Your task to perform on an android device: Open Chrome and go to the settings page Image 0: 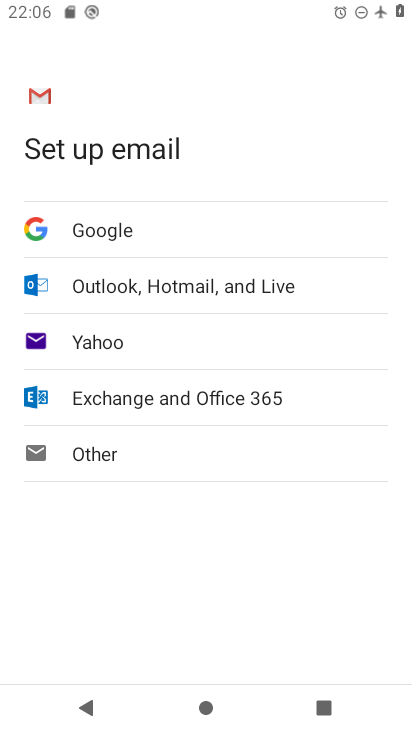
Step 0: press home button
Your task to perform on an android device: Open Chrome and go to the settings page Image 1: 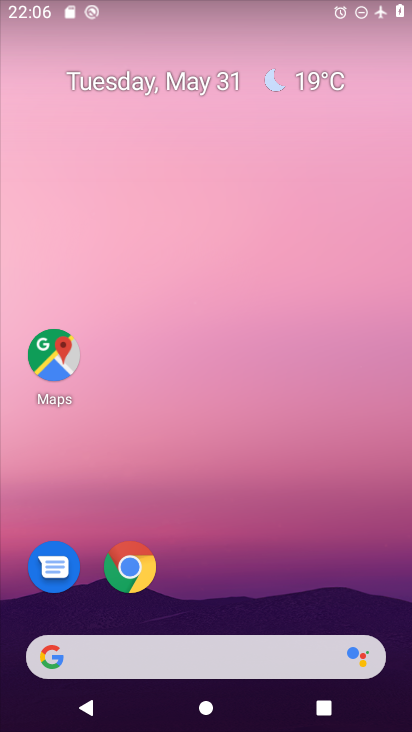
Step 1: click (123, 579)
Your task to perform on an android device: Open Chrome and go to the settings page Image 2: 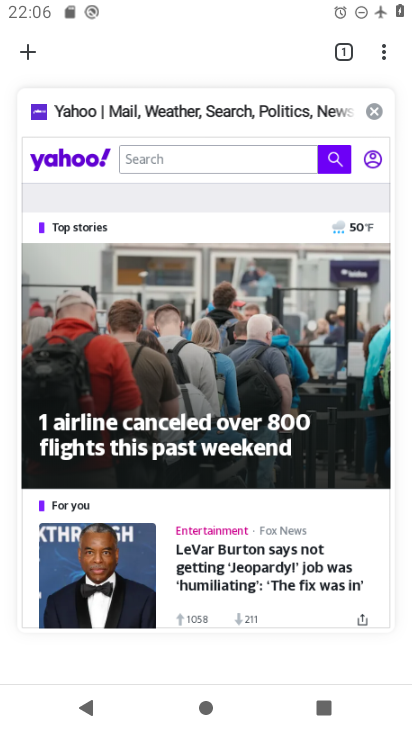
Step 2: click (381, 52)
Your task to perform on an android device: Open Chrome and go to the settings page Image 3: 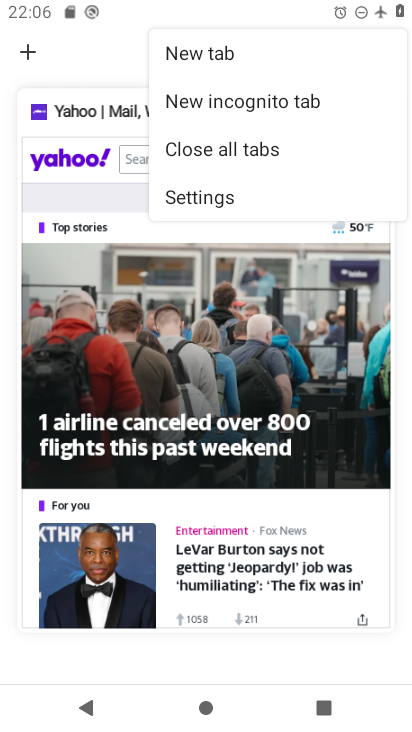
Step 3: click (198, 193)
Your task to perform on an android device: Open Chrome and go to the settings page Image 4: 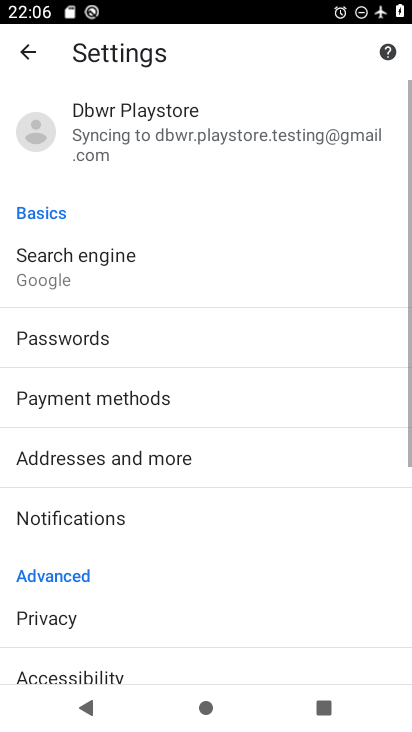
Step 4: task complete